Your task to perform on an android device: turn off notifications in google photos Image 0: 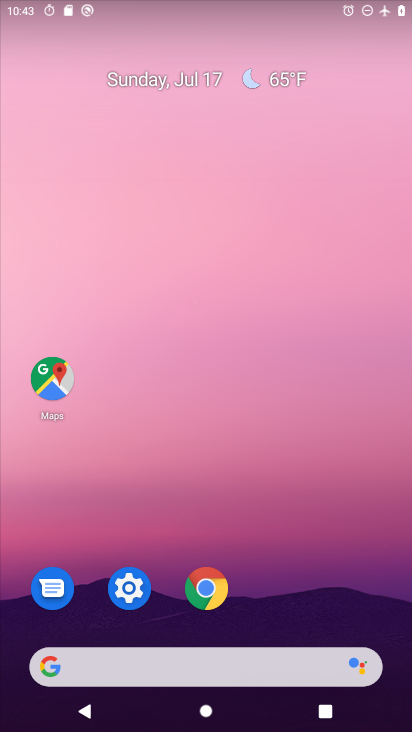
Step 0: drag from (180, 536) to (200, 222)
Your task to perform on an android device: turn off notifications in google photos Image 1: 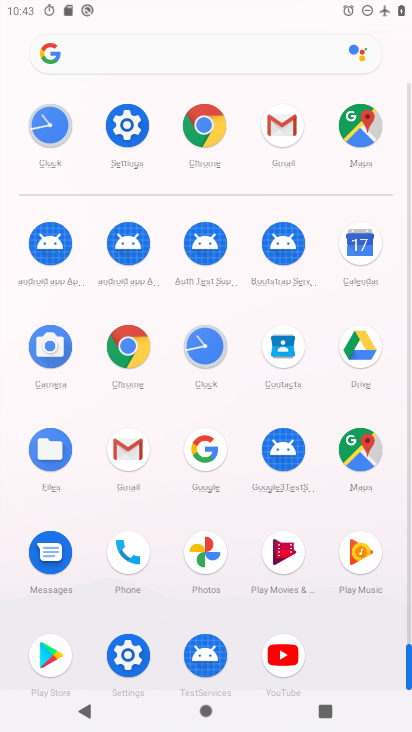
Step 1: click (214, 549)
Your task to perform on an android device: turn off notifications in google photos Image 2: 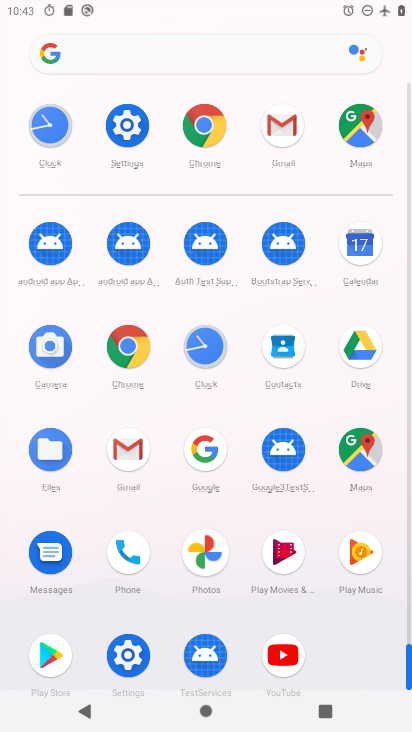
Step 2: click (214, 549)
Your task to perform on an android device: turn off notifications in google photos Image 3: 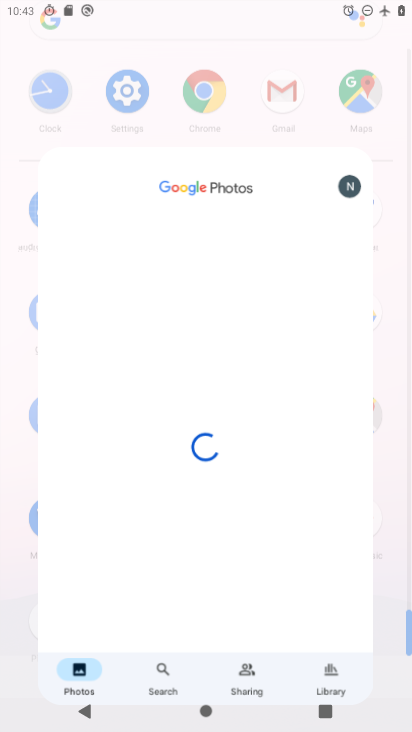
Step 3: click (214, 549)
Your task to perform on an android device: turn off notifications in google photos Image 4: 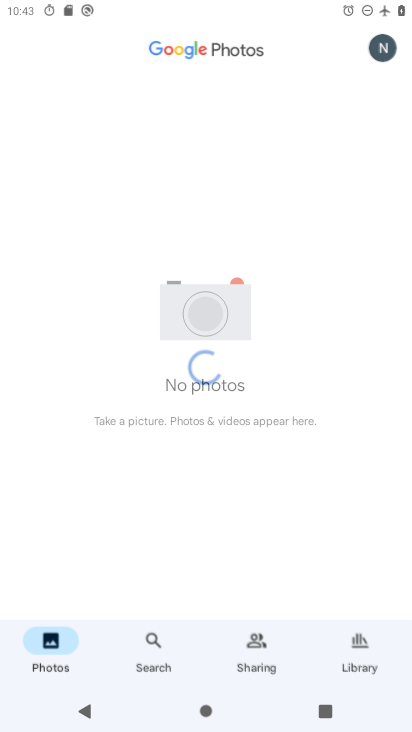
Step 4: click (213, 547)
Your task to perform on an android device: turn off notifications in google photos Image 5: 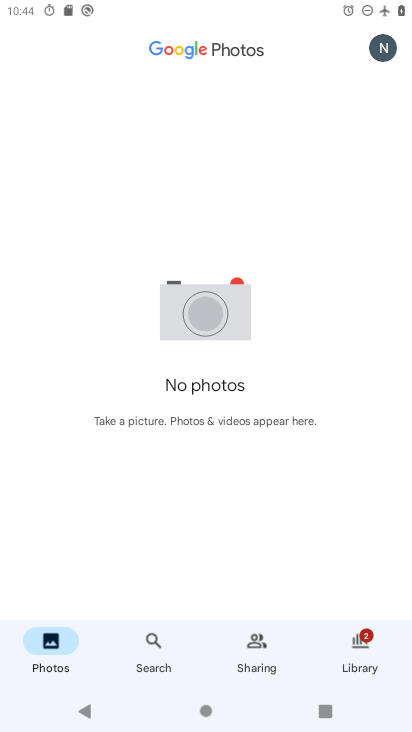
Step 5: press back button
Your task to perform on an android device: turn off notifications in google photos Image 6: 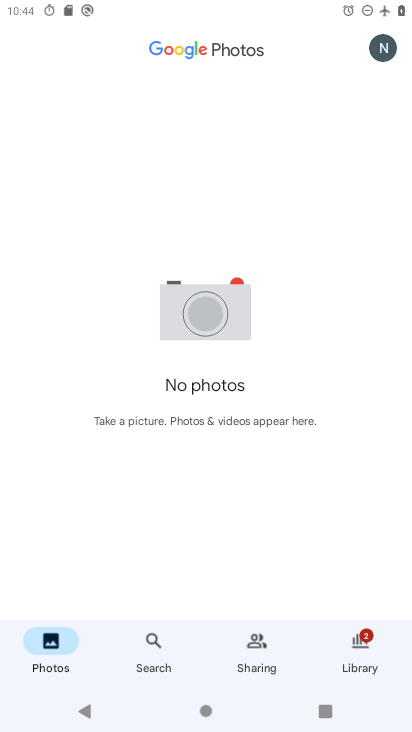
Step 6: press back button
Your task to perform on an android device: turn off notifications in google photos Image 7: 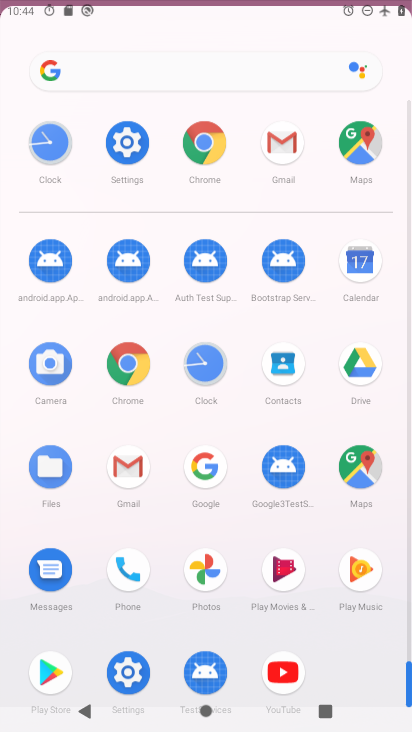
Step 7: press back button
Your task to perform on an android device: turn off notifications in google photos Image 8: 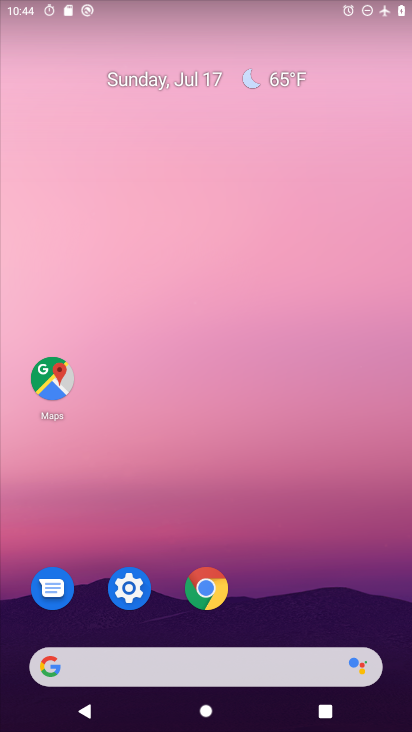
Step 8: drag from (160, 591) to (154, 38)
Your task to perform on an android device: turn off notifications in google photos Image 9: 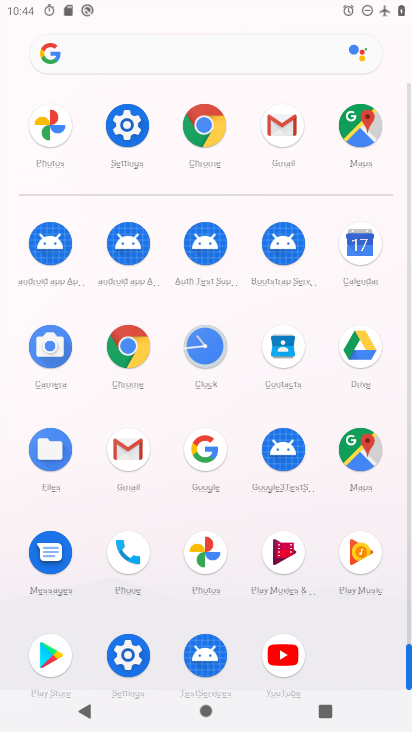
Step 9: click (53, 127)
Your task to perform on an android device: turn off notifications in google photos Image 10: 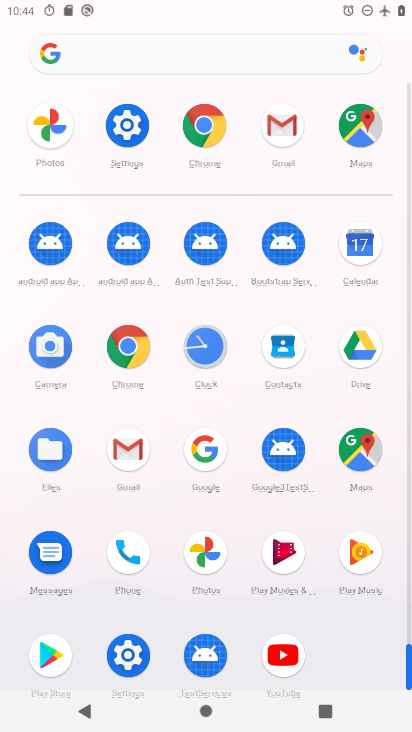
Step 10: click (53, 127)
Your task to perform on an android device: turn off notifications in google photos Image 11: 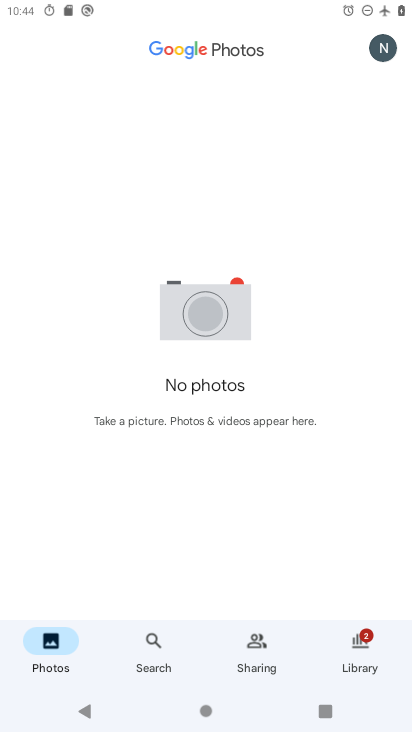
Step 11: task complete